Your task to perform on an android device: turn off notifications settings in the gmail app Image 0: 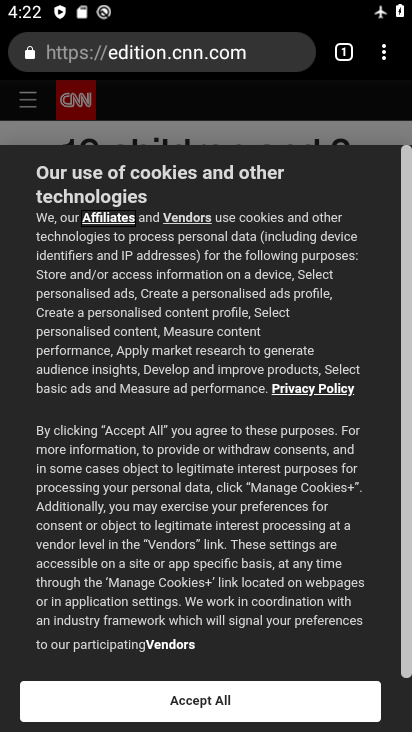
Step 0: click (380, 351)
Your task to perform on an android device: turn off notifications settings in the gmail app Image 1: 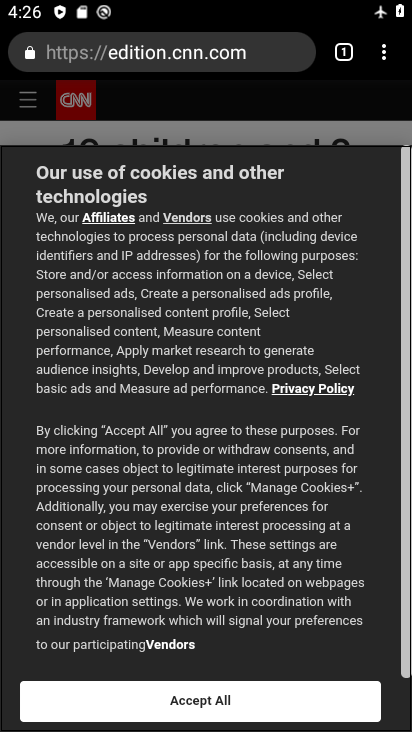
Step 1: press home button
Your task to perform on an android device: turn off notifications settings in the gmail app Image 2: 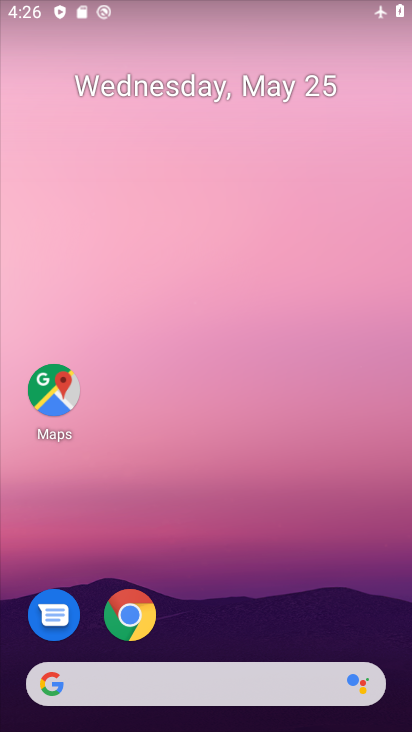
Step 2: drag from (321, 641) to (255, 23)
Your task to perform on an android device: turn off notifications settings in the gmail app Image 3: 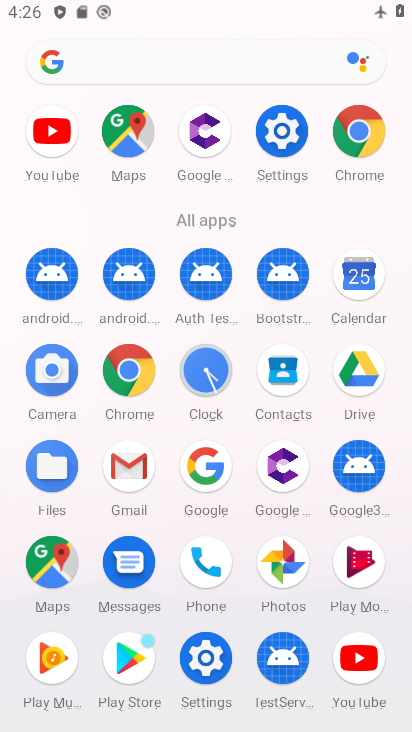
Step 3: click (149, 467)
Your task to perform on an android device: turn off notifications settings in the gmail app Image 4: 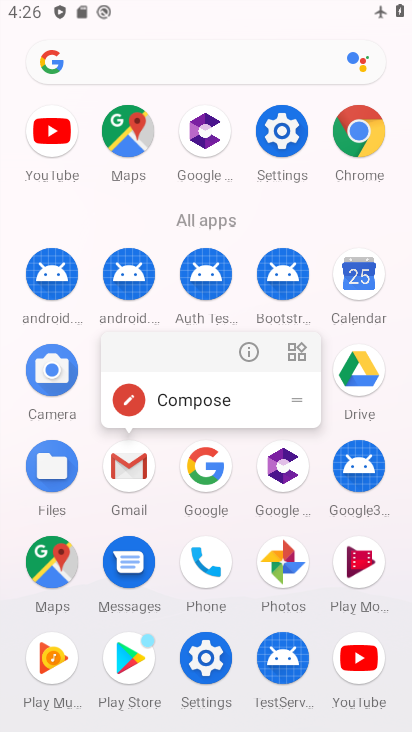
Step 4: click (252, 351)
Your task to perform on an android device: turn off notifications settings in the gmail app Image 5: 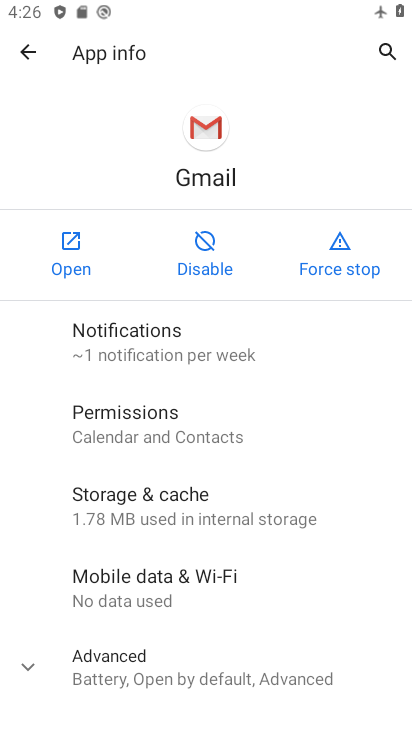
Step 5: click (252, 351)
Your task to perform on an android device: turn off notifications settings in the gmail app Image 6: 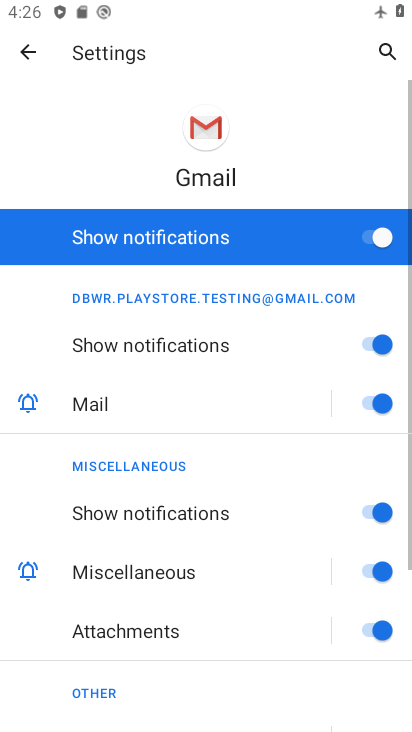
Step 6: click (284, 263)
Your task to perform on an android device: turn off notifications settings in the gmail app Image 7: 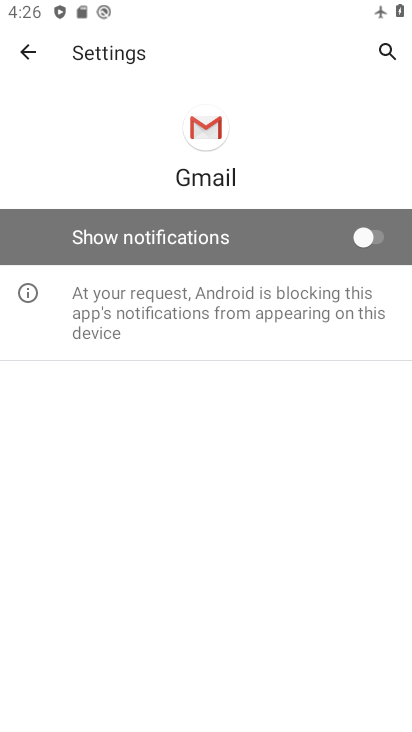
Step 7: task complete